Your task to perform on an android device: Do I have any events this weekend? Image 0: 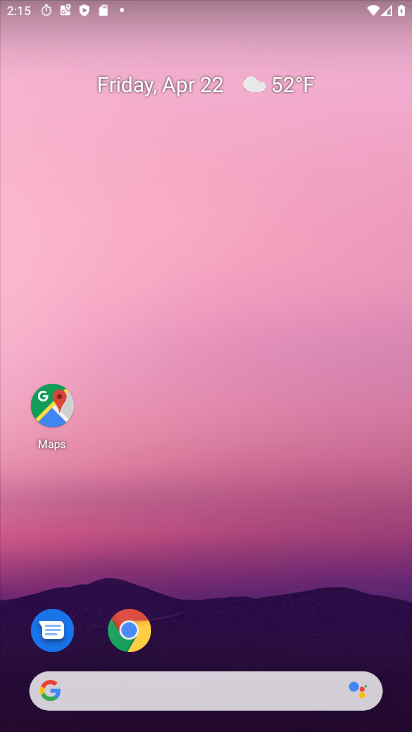
Step 0: drag from (276, 149) to (260, 107)
Your task to perform on an android device: Do I have any events this weekend? Image 1: 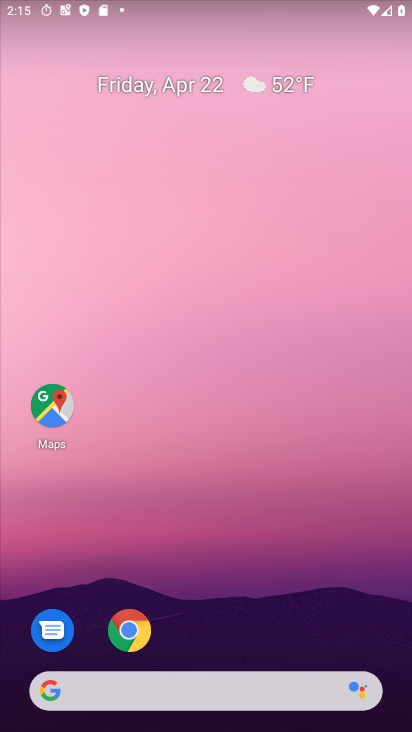
Step 1: drag from (386, 143) to (382, 48)
Your task to perform on an android device: Do I have any events this weekend? Image 2: 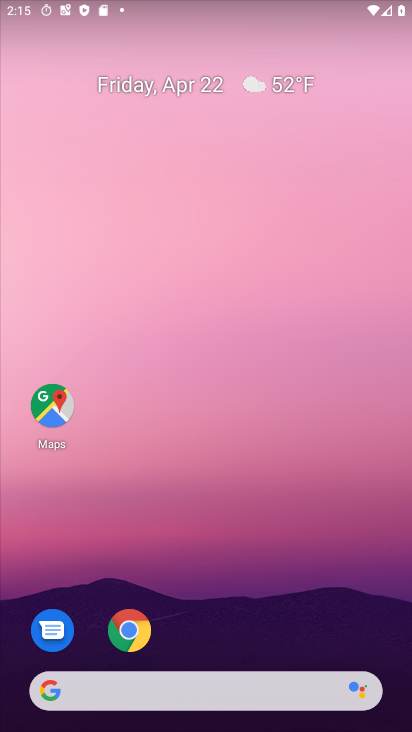
Step 2: click (377, 145)
Your task to perform on an android device: Do I have any events this weekend? Image 3: 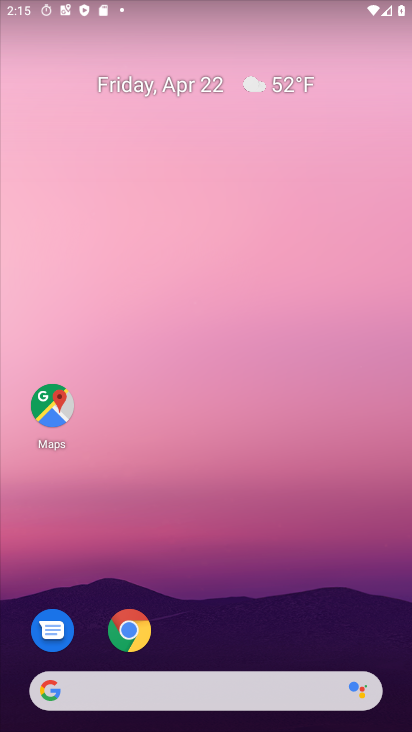
Step 3: drag from (386, 658) to (349, 145)
Your task to perform on an android device: Do I have any events this weekend? Image 4: 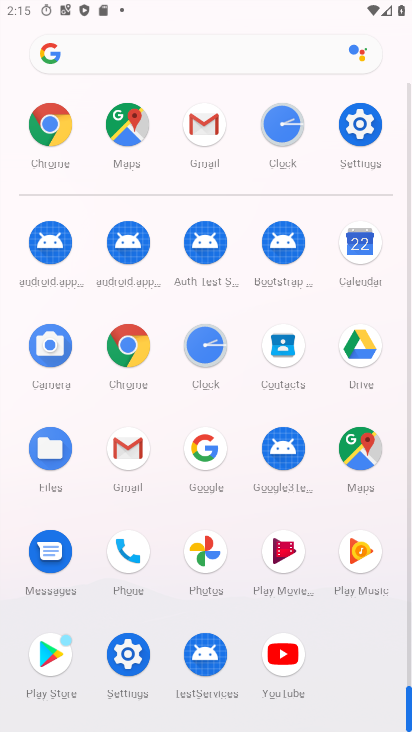
Step 4: click (358, 243)
Your task to perform on an android device: Do I have any events this weekend? Image 5: 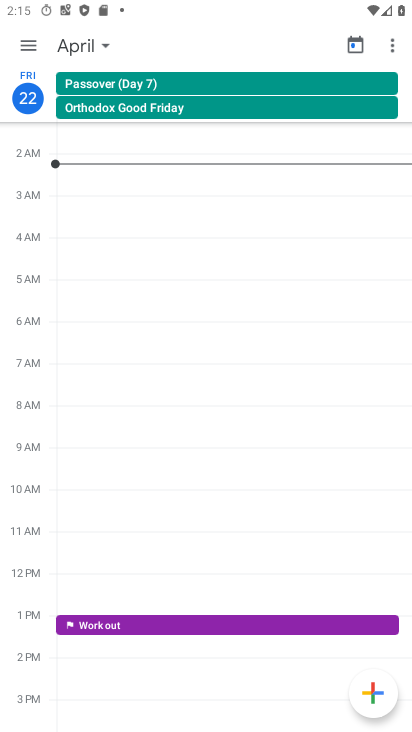
Step 5: click (31, 41)
Your task to perform on an android device: Do I have any events this weekend? Image 6: 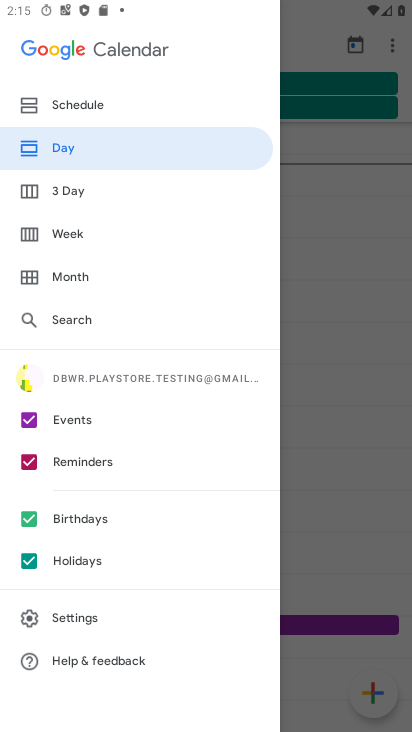
Step 6: click (23, 461)
Your task to perform on an android device: Do I have any events this weekend? Image 7: 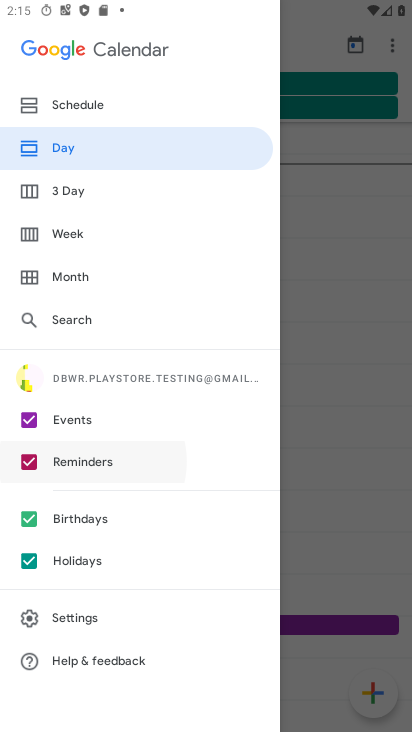
Step 7: click (28, 512)
Your task to perform on an android device: Do I have any events this weekend? Image 8: 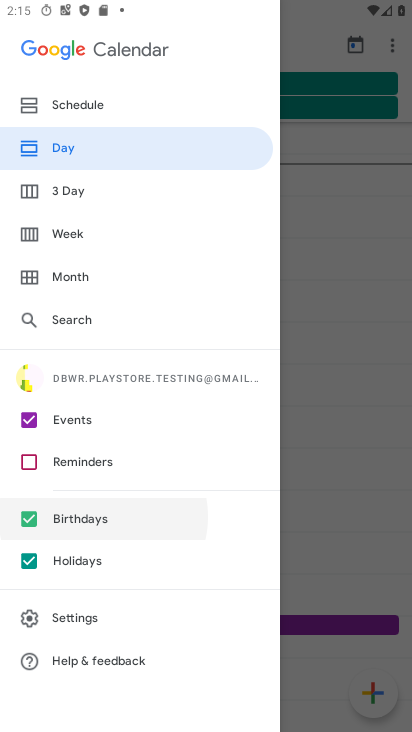
Step 8: click (23, 562)
Your task to perform on an android device: Do I have any events this weekend? Image 9: 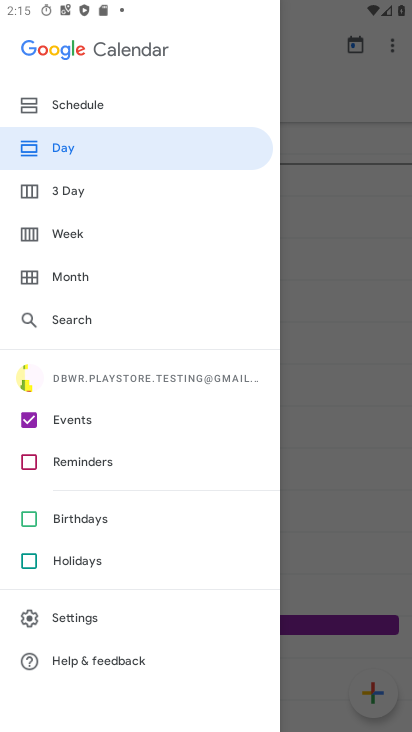
Step 9: click (44, 230)
Your task to perform on an android device: Do I have any events this weekend? Image 10: 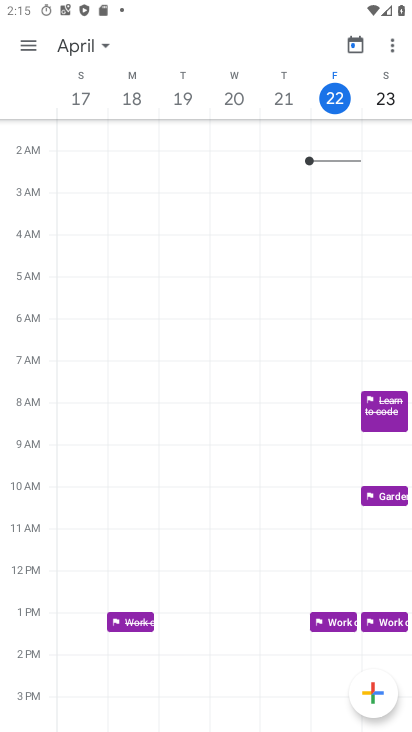
Step 10: task complete